Your task to perform on an android device: open app "Indeed Job Search" Image 0: 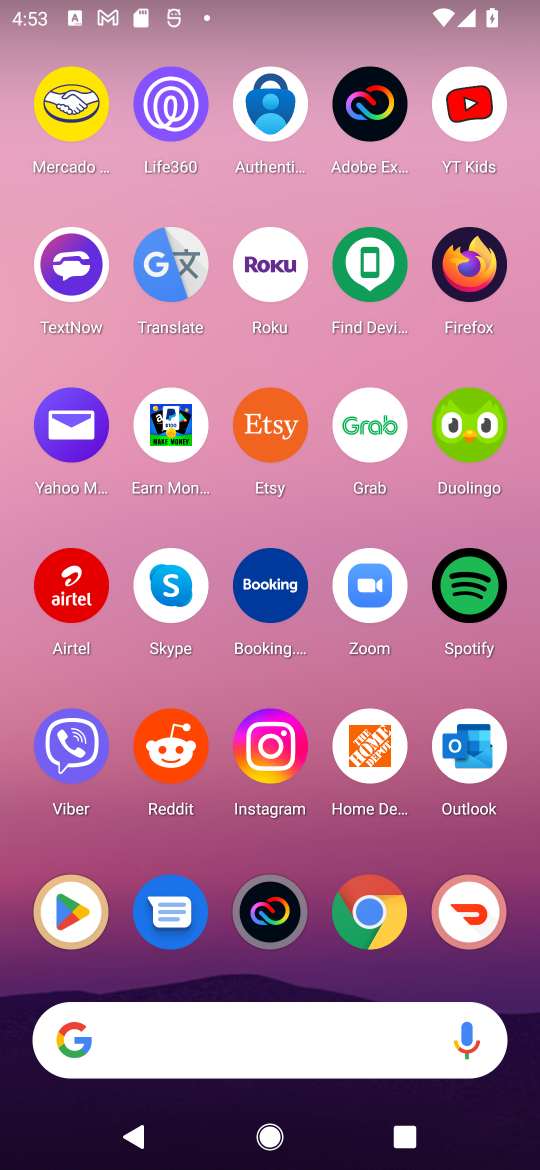
Step 0: press home button
Your task to perform on an android device: open app "Indeed Job Search" Image 1: 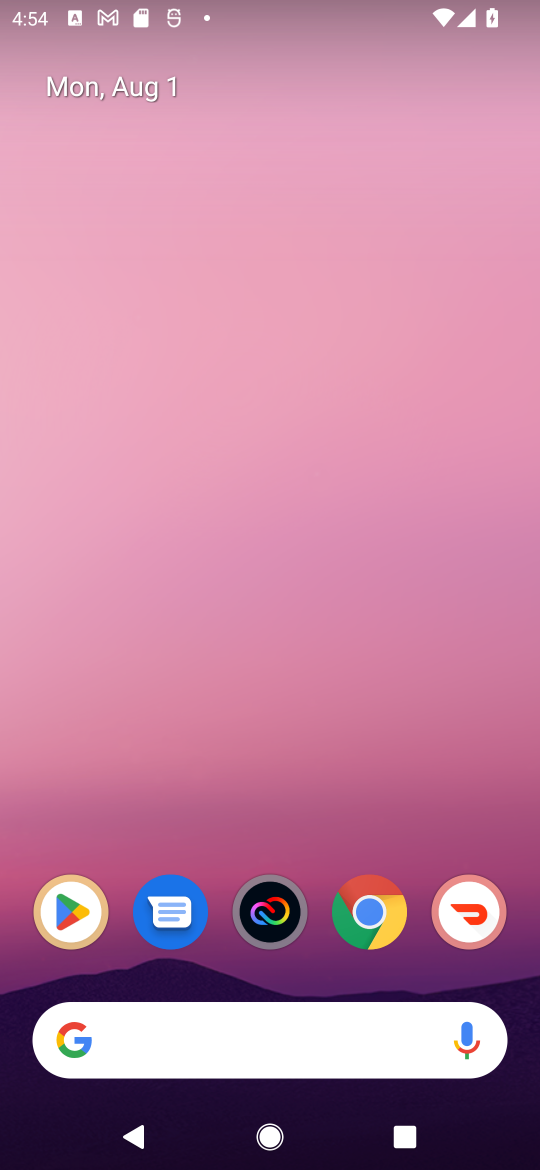
Step 1: click (59, 911)
Your task to perform on an android device: open app "Indeed Job Search" Image 2: 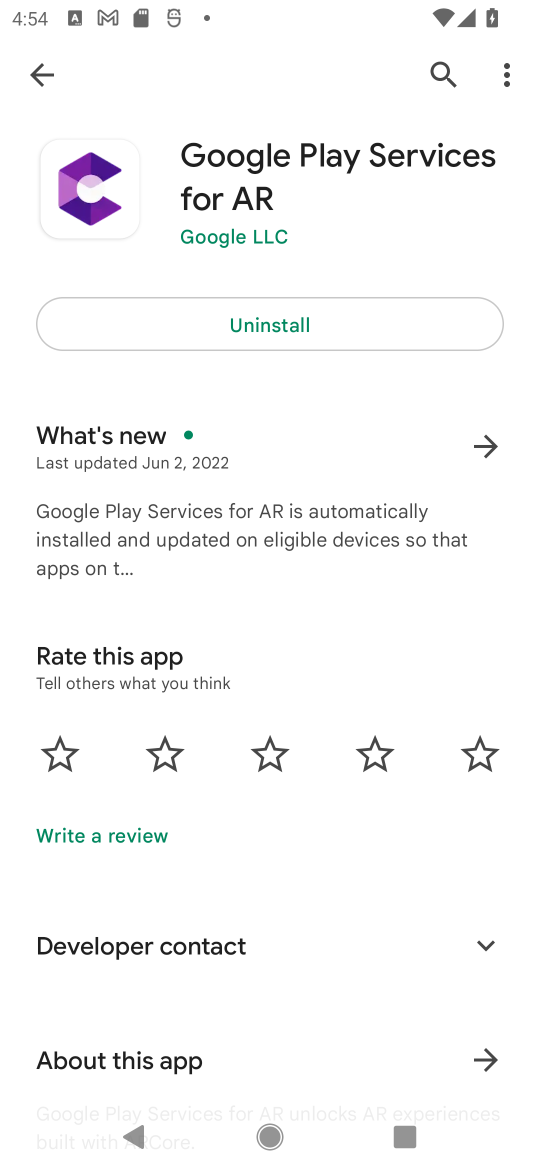
Step 2: click (442, 63)
Your task to perform on an android device: open app "Indeed Job Search" Image 3: 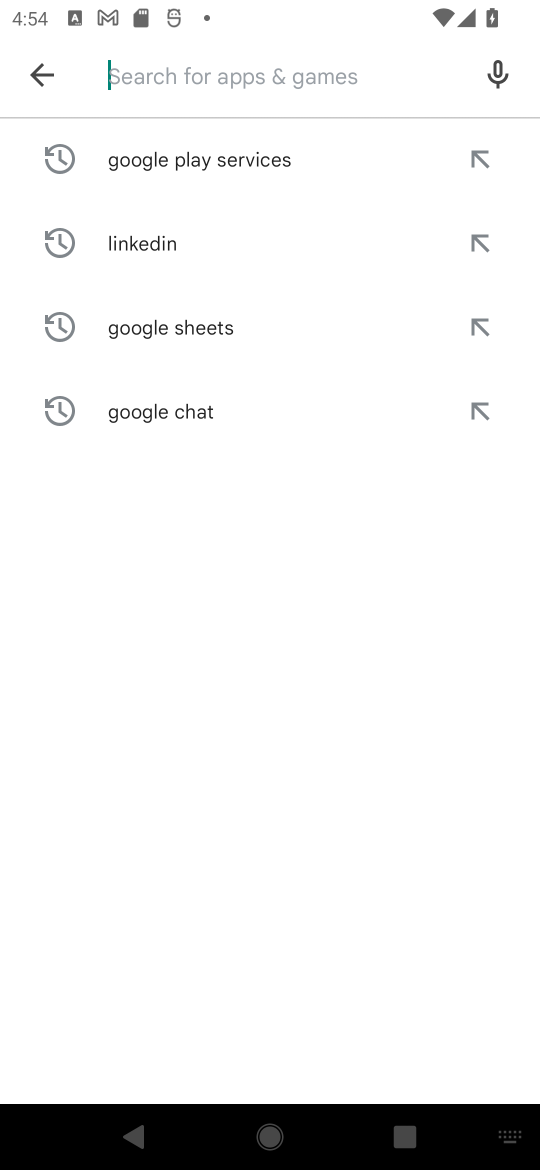
Step 3: type "Indeed Job Search"
Your task to perform on an android device: open app "Indeed Job Search" Image 4: 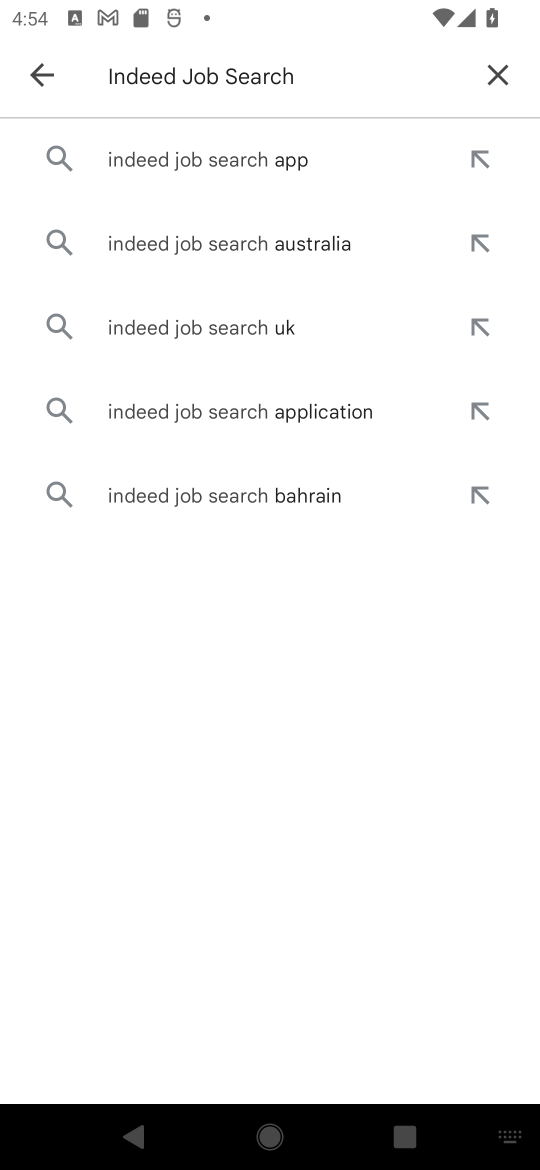
Step 4: click (175, 167)
Your task to perform on an android device: open app "Indeed Job Search" Image 5: 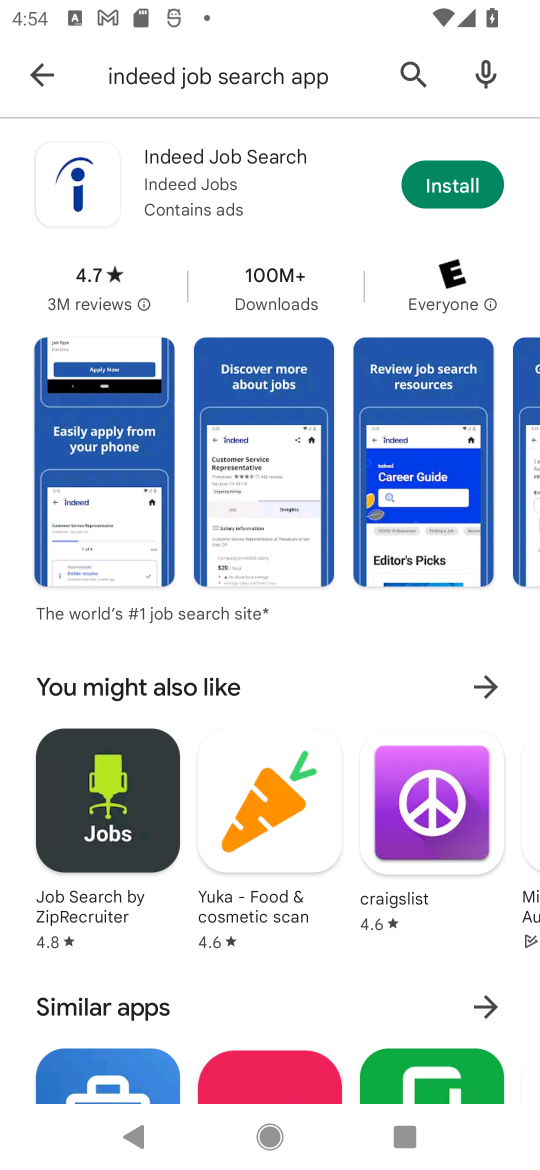
Step 5: task complete